Your task to perform on an android device: turn off improve location accuracy Image 0: 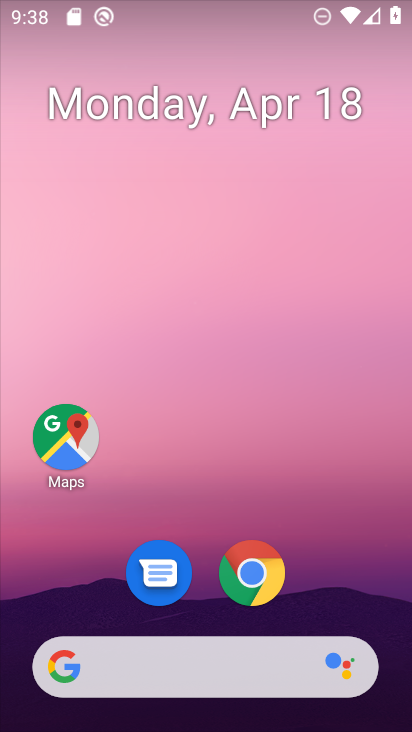
Step 0: drag from (355, 591) to (234, 75)
Your task to perform on an android device: turn off improve location accuracy Image 1: 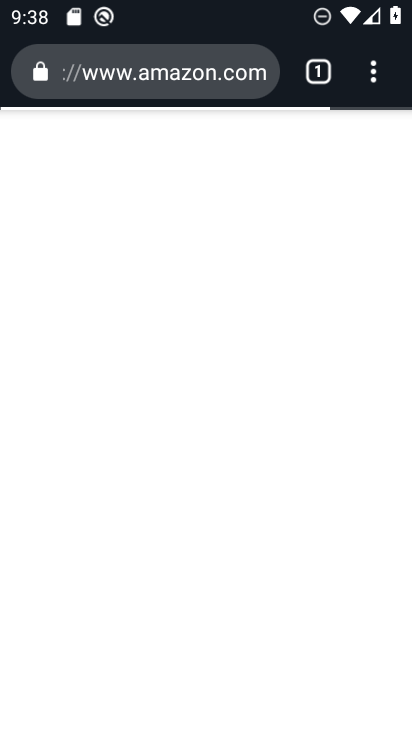
Step 1: press home button
Your task to perform on an android device: turn off improve location accuracy Image 2: 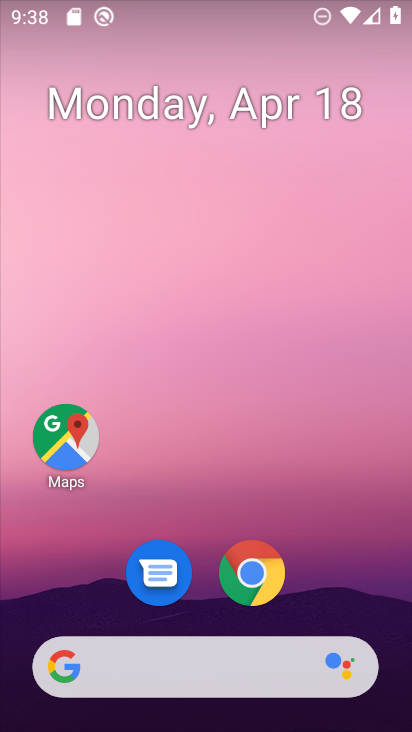
Step 2: drag from (363, 575) to (213, 43)
Your task to perform on an android device: turn off improve location accuracy Image 3: 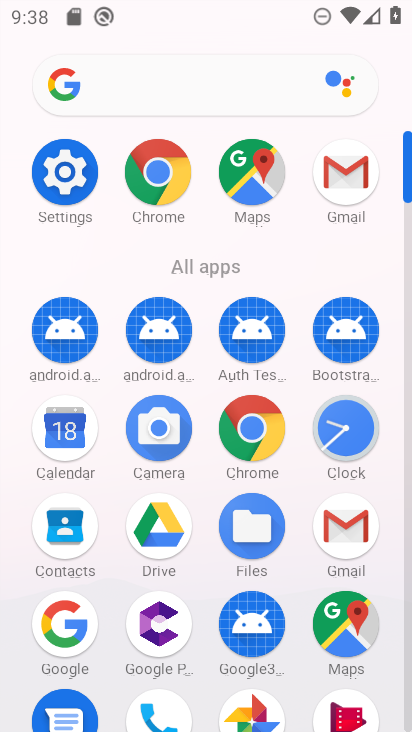
Step 3: click (53, 180)
Your task to perform on an android device: turn off improve location accuracy Image 4: 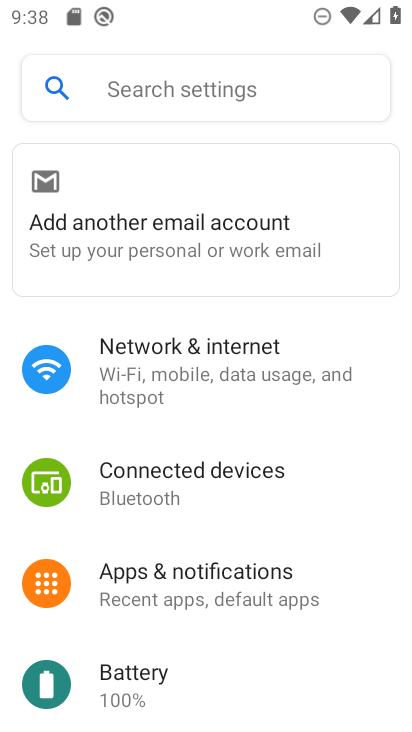
Step 4: drag from (182, 586) to (163, 222)
Your task to perform on an android device: turn off improve location accuracy Image 5: 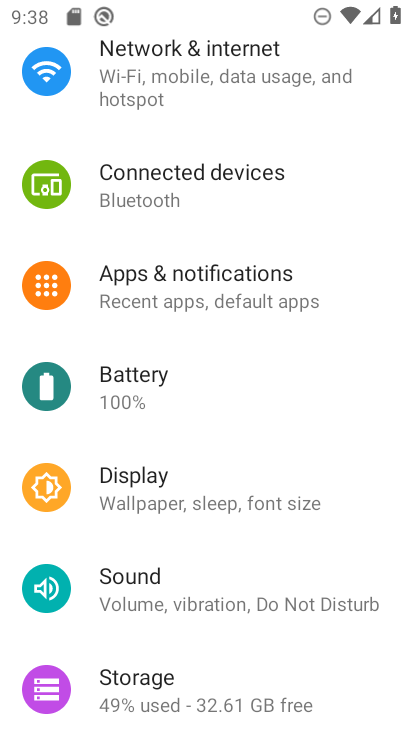
Step 5: drag from (196, 564) to (181, 226)
Your task to perform on an android device: turn off improve location accuracy Image 6: 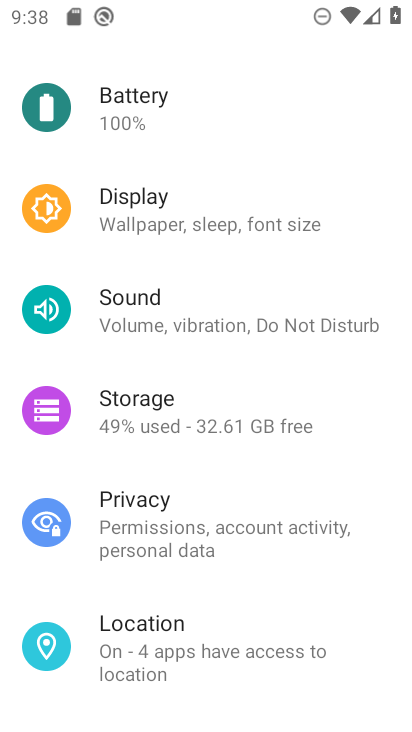
Step 6: click (162, 645)
Your task to perform on an android device: turn off improve location accuracy Image 7: 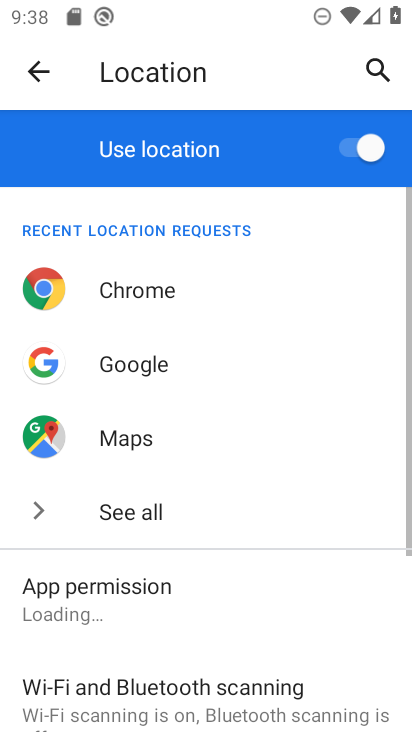
Step 7: drag from (162, 643) to (131, 203)
Your task to perform on an android device: turn off improve location accuracy Image 8: 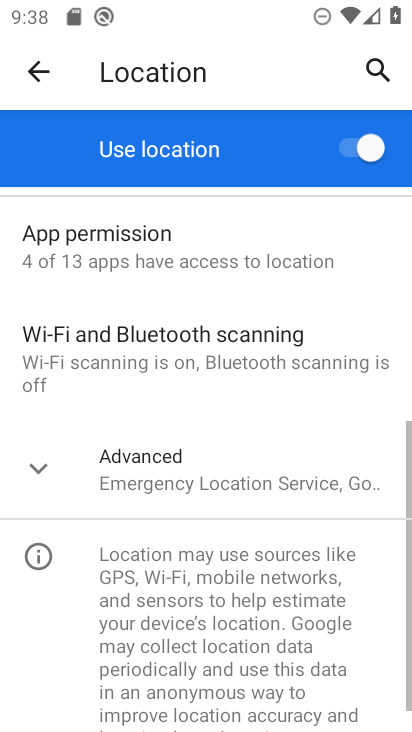
Step 8: click (173, 461)
Your task to perform on an android device: turn off improve location accuracy Image 9: 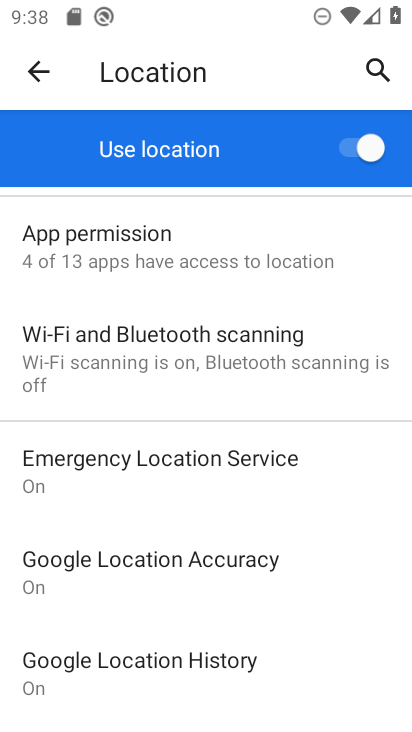
Step 9: click (171, 545)
Your task to perform on an android device: turn off improve location accuracy Image 10: 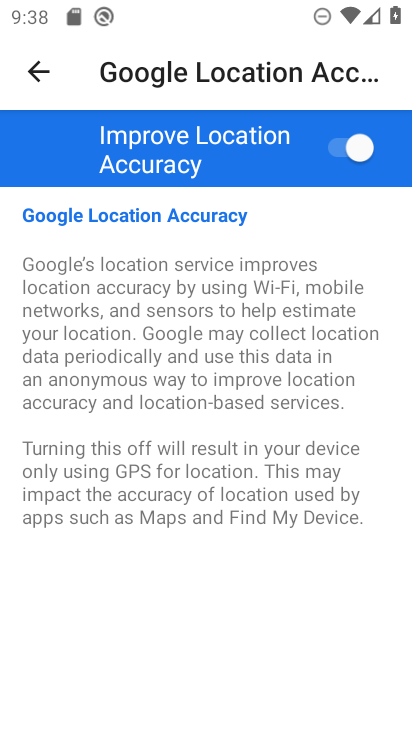
Step 10: click (306, 159)
Your task to perform on an android device: turn off improve location accuracy Image 11: 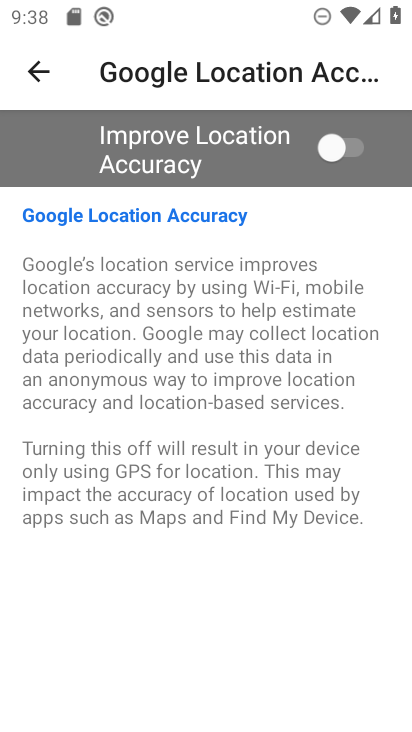
Step 11: task complete